Your task to perform on an android device: toggle translation in the chrome app Image 0: 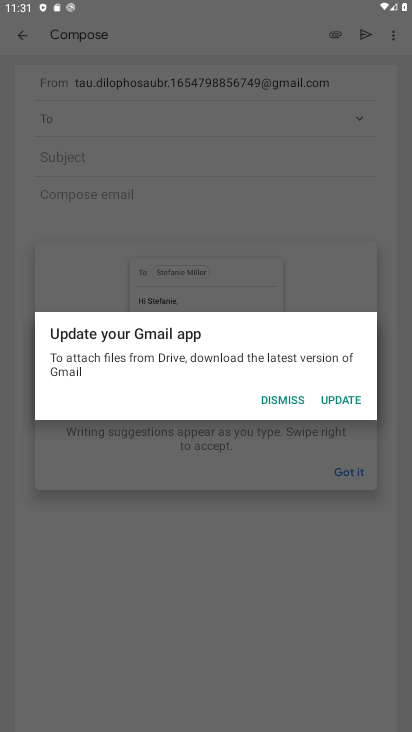
Step 0: press home button
Your task to perform on an android device: toggle translation in the chrome app Image 1: 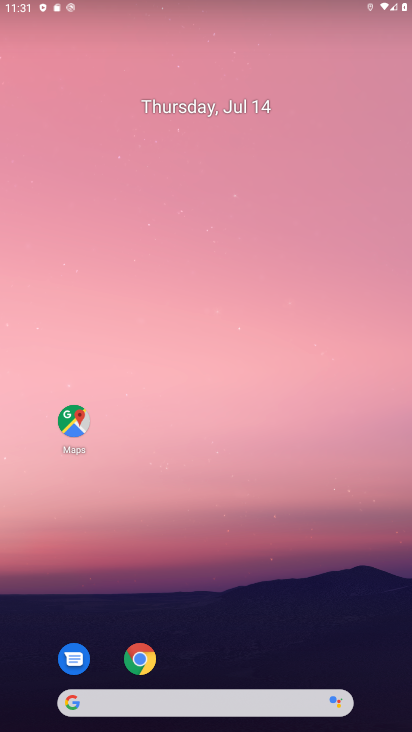
Step 1: drag from (303, 661) to (294, 310)
Your task to perform on an android device: toggle translation in the chrome app Image 2: 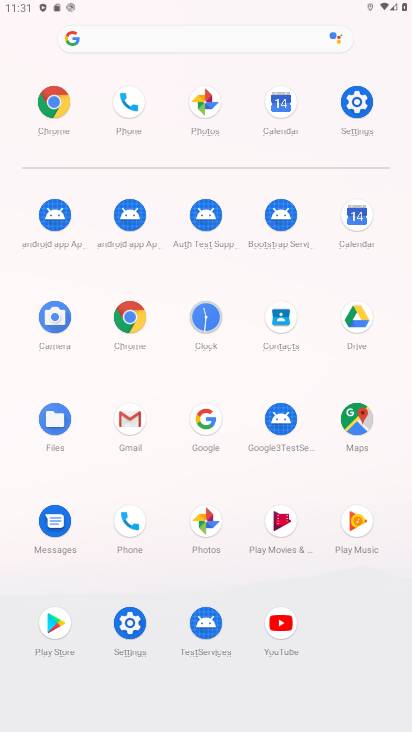
Step 2: click (119, 290)
Your task to perform on an android device: toggle translation in the chrome app Image 3: 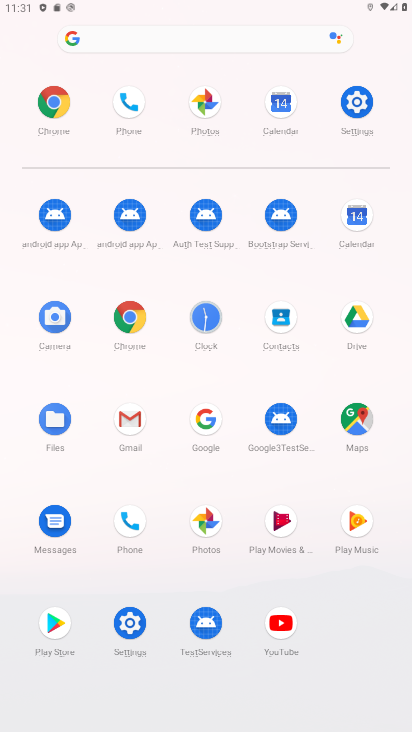
Step 3: click (123, 307)
Your task to perform on an android device: toggle translation in the chrome app Image 4: 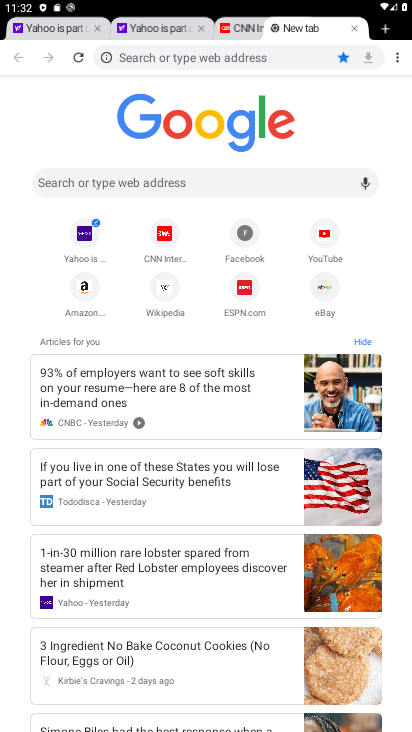
Step 4: click (396, 61)
Your task to perform on an android device: toggle translation in the chrome app Image 5: 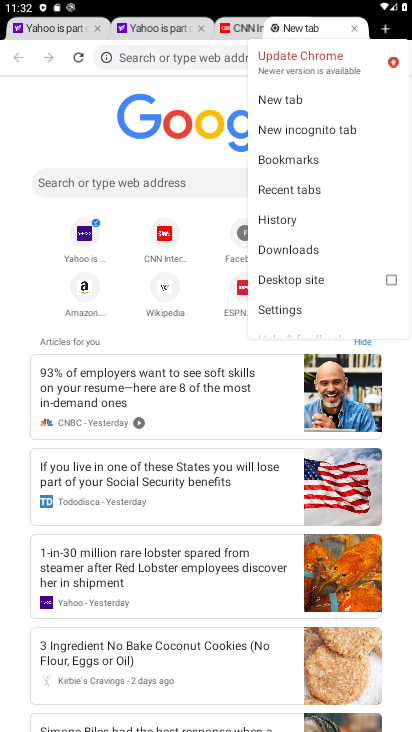
Step 5: click (300, 300)
Your task to perform on an android device: toggle translation in the chrome app Image 6: 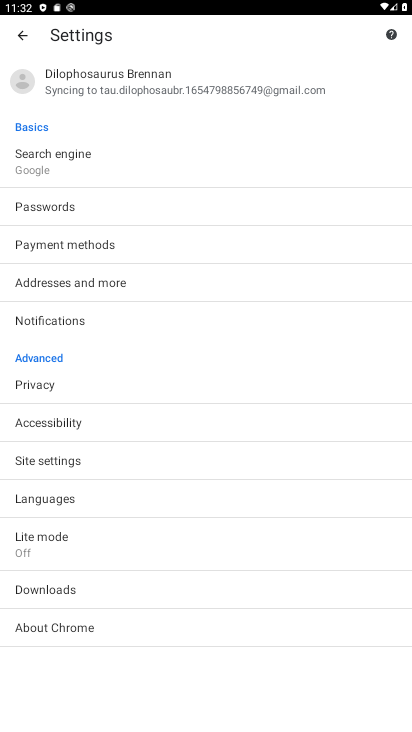
Step 6: click (50, 496)
Your task to perform on an android device: toggle translation in the chrome app Image 7: 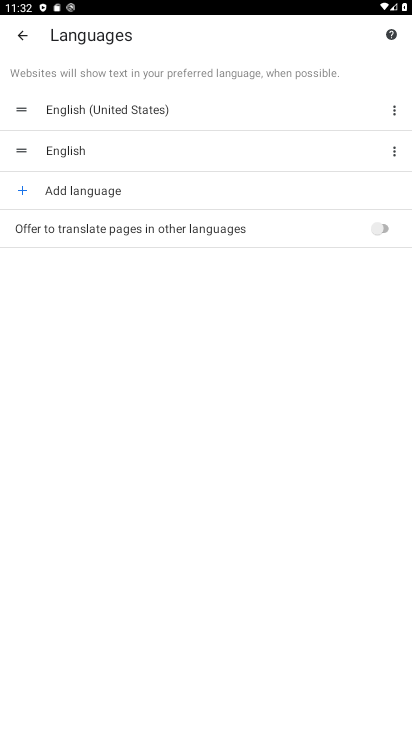
Step 7: click (389, 224)
Your task to perform on an android device: toggle translation in the chrome app Image 8: 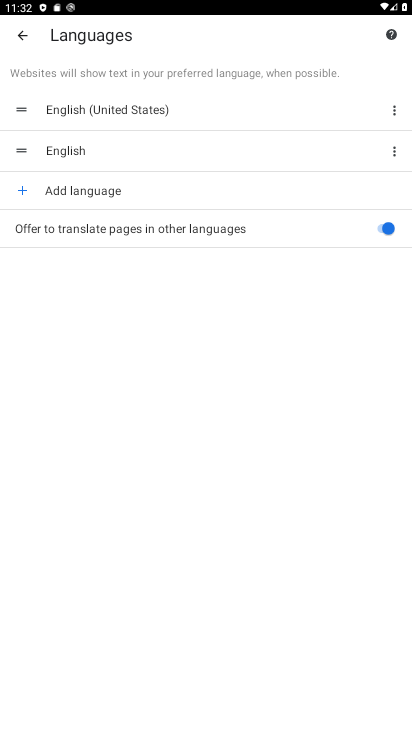
Step 8: task complete